Your task to perform on an android device: turn on wifi Image 0: 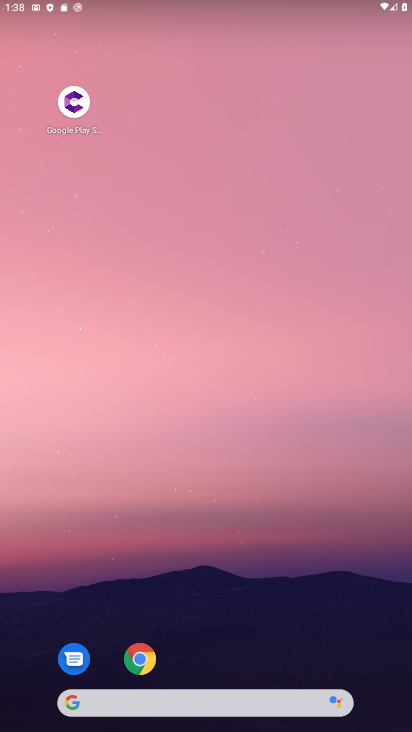
Step 0: drag from (190, 682) to (164, 80)
Your task to perform on an android device: turn on wifi Image 1: 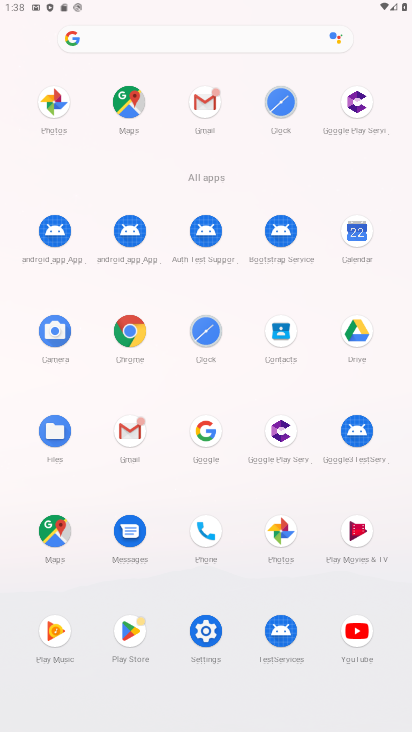
Step 1: click (207, 635)
Your task to perform on an android device: turn on wifi Image 2: 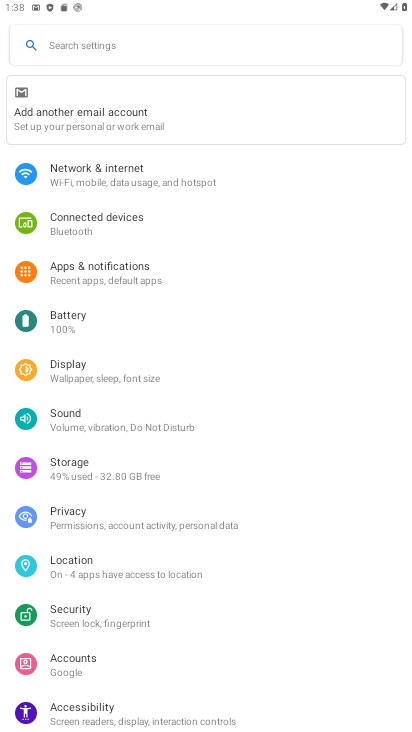
Step 2: click (143, 181)
Your task to perform on an android device: turn on wifi Image 3: 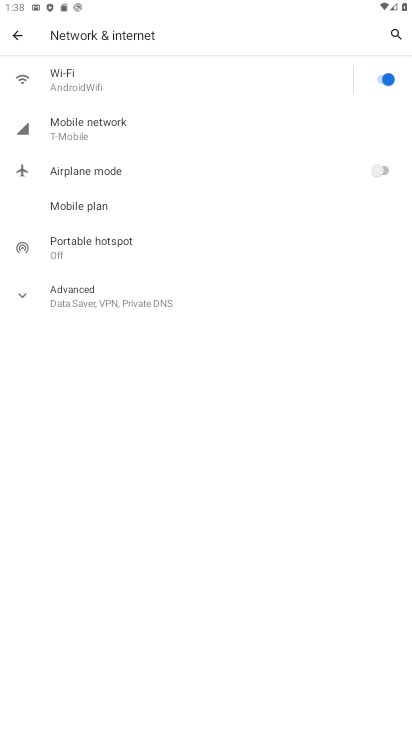
Step 3: task complete